Your task to perform on an android device: Check the news Image 0: 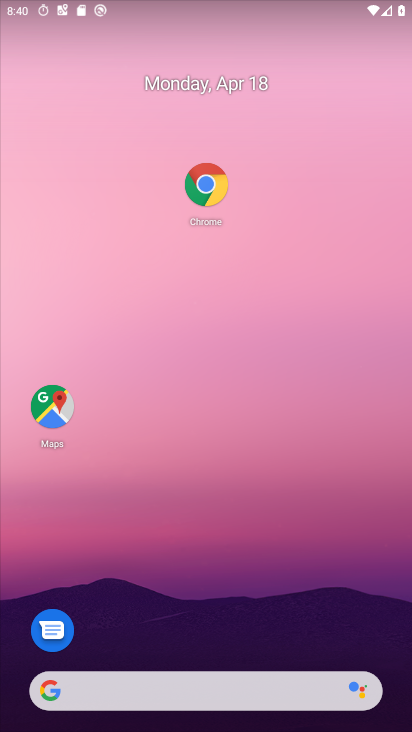
Step 0: drag from (3, 284) to (410, 273)
Your task to perform on an android device: Check the news Image 1: 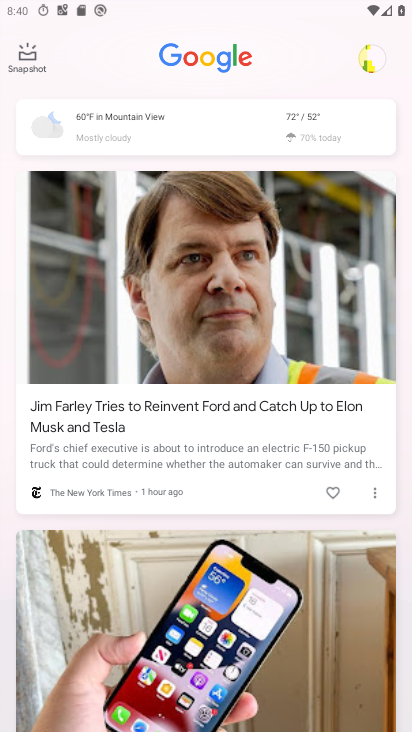
Step 1: task complete